Your task to perform on an android device: toggle data saver in the chrome app Image 0: 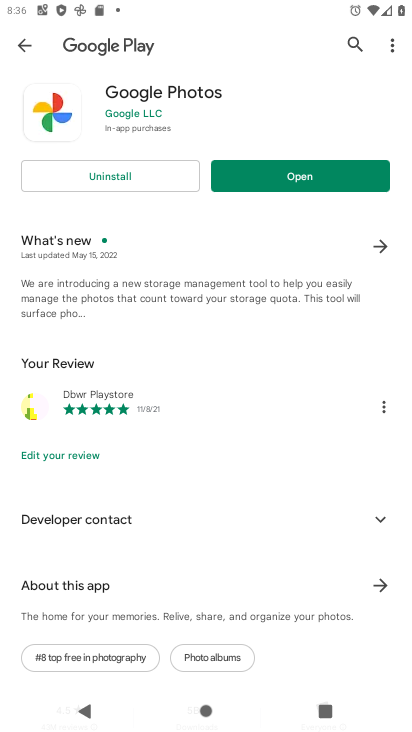
Step 0: press home button
Your task to perform on an android device: toggle data saver in the chrome app Image 1: 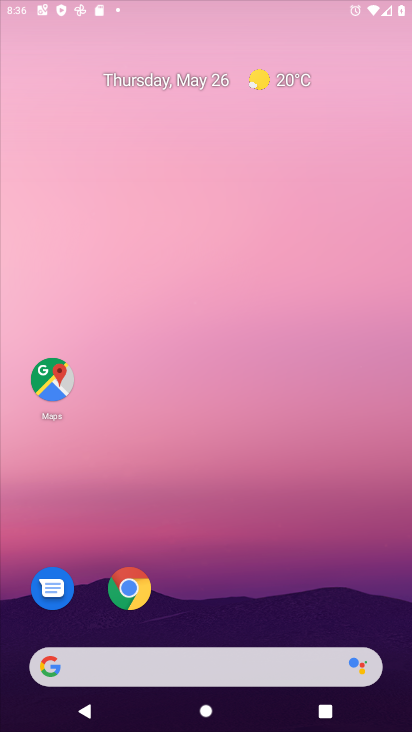
Step 1: drag from (381, 643) to (307, 68)
Your task to perform on an android device: toggle data saver in the chrome app Image 2: 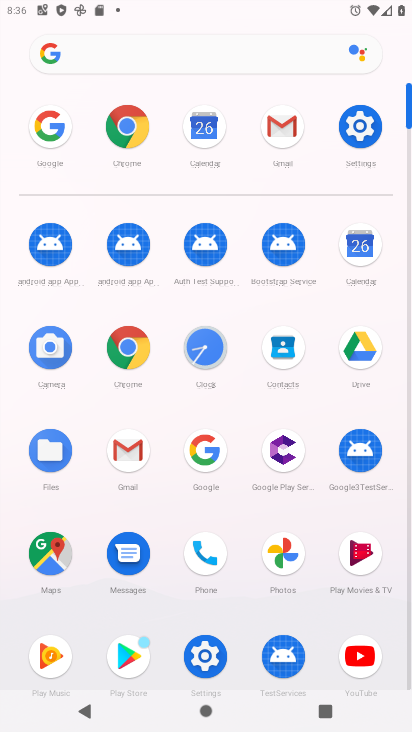
Step 2: click (115, 349)
Your task to perform on an android device: toggle data saver in the chrome app Image 3: 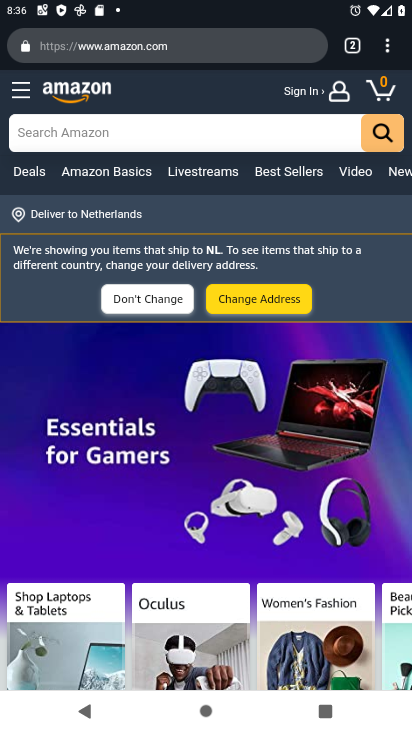
Step 3: press back button
Your task to perform on an android device: toggle data saver in the chrome app Image 4: 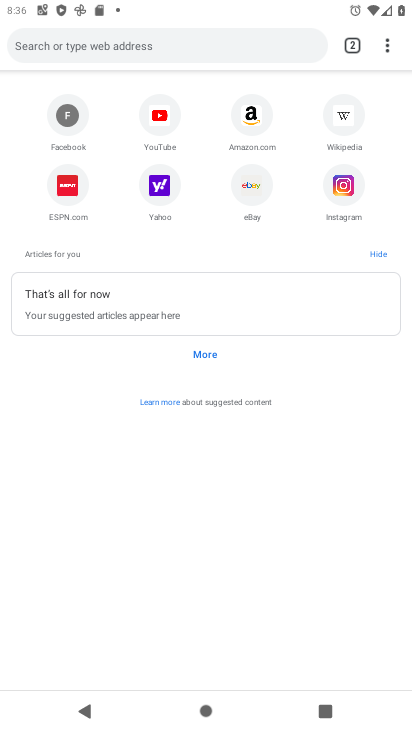
Step 4: click (389, 45)
Your task to perform on an android device: toggle data saver in the chrome app Image 5: 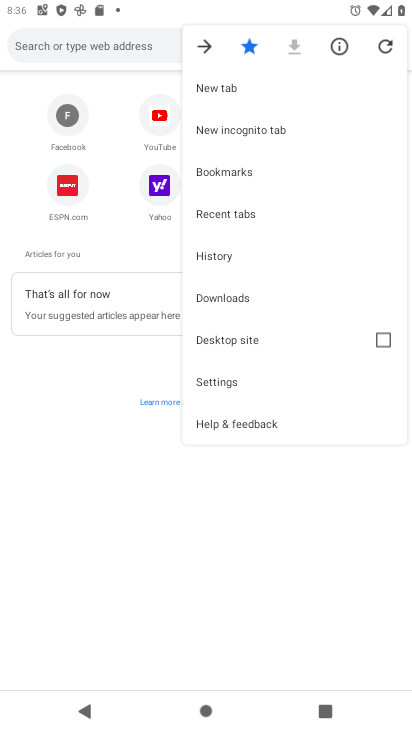
Step 5: click (254, 376)
Your task to perform on an android device: toggle data saver in the chrome app Image 6: 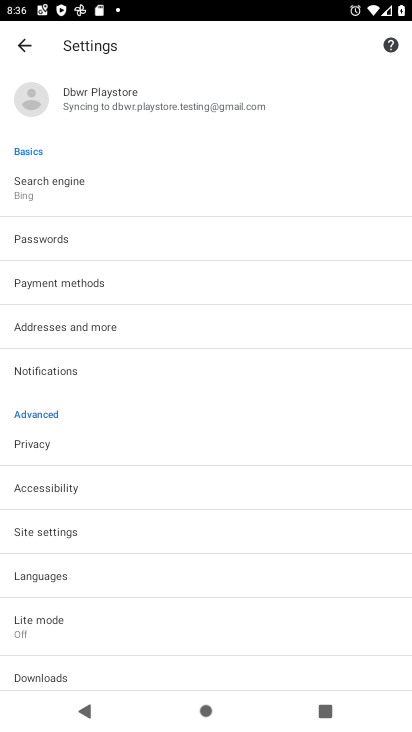
Step 6: click (78, 626)
Your task to perform on an android device: toggle data saver in the chrome app Image 7: 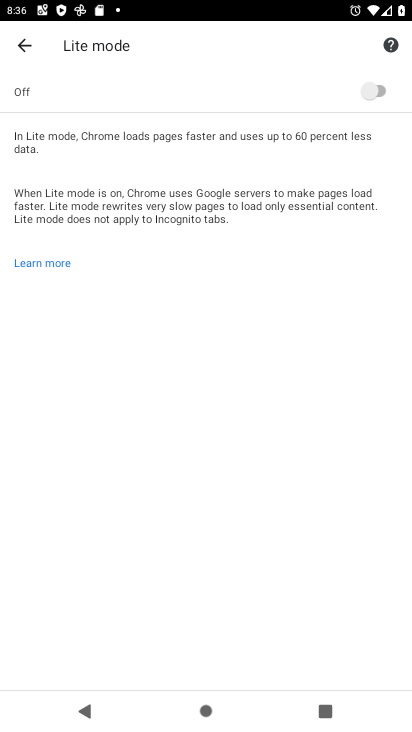
Step 7: click (369, 99)
Your task to perform on an android device: toggle data saver in the chrome app Image 8: 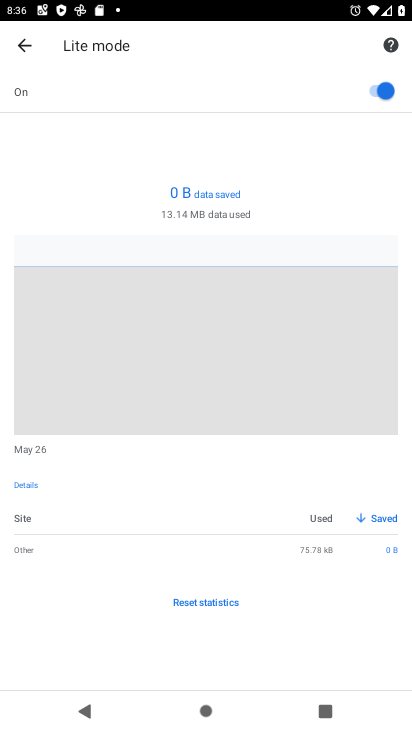
Step 8: task complete